Your task to perform on an android device: empty trash in google photos Image 0: 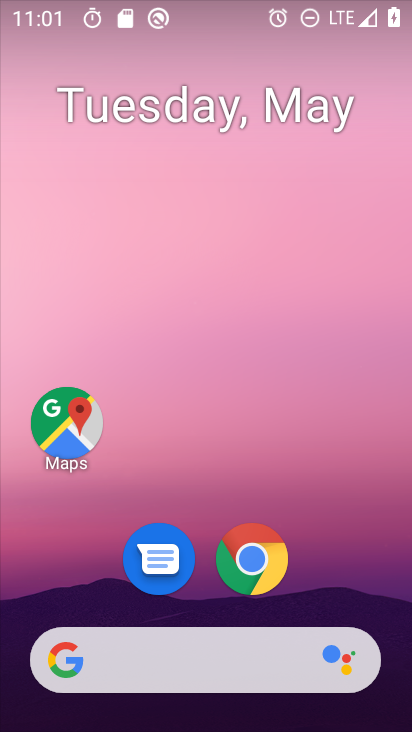
Step 0: drag from (396, 661) to (287, 141)
Your task to perform on an android device: empty trash in google photos Image 1: 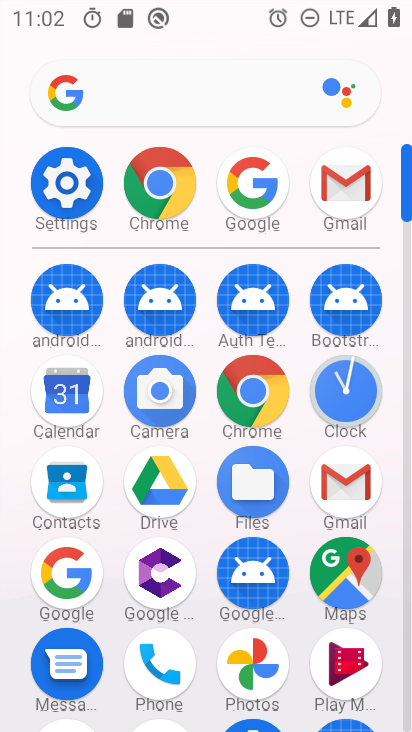
Step 1: click (261, 651)
Your task to perform on an android device: empty trash in google photos Image 2: 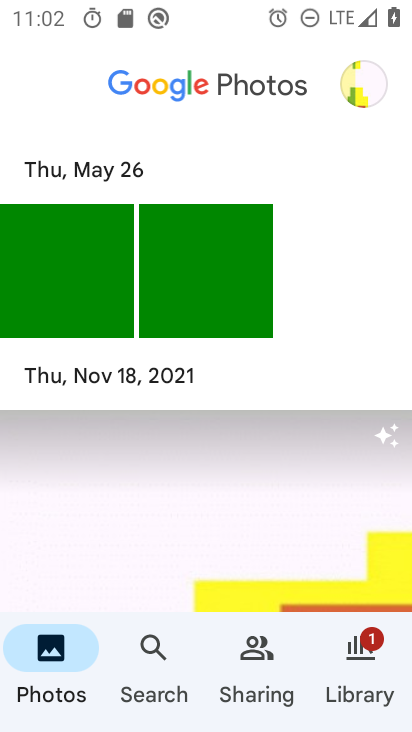
Step 2: click (355, 651)
Your task to perform on an android device: empty trash in google photos Image 3: 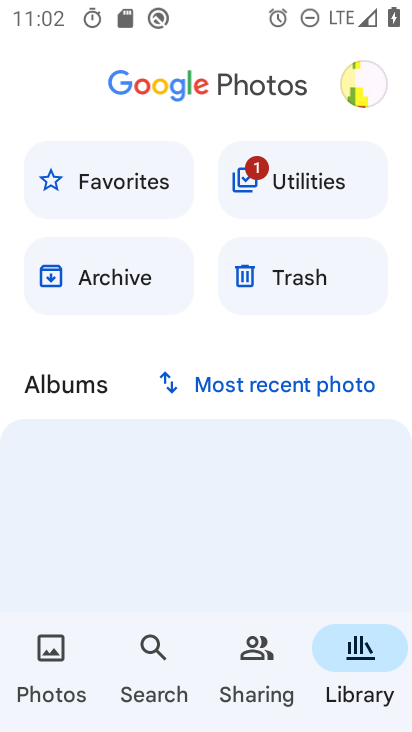
Step 3: click (297, 285)
Your task to perform on an android device: empty trash in google photos Image 4: 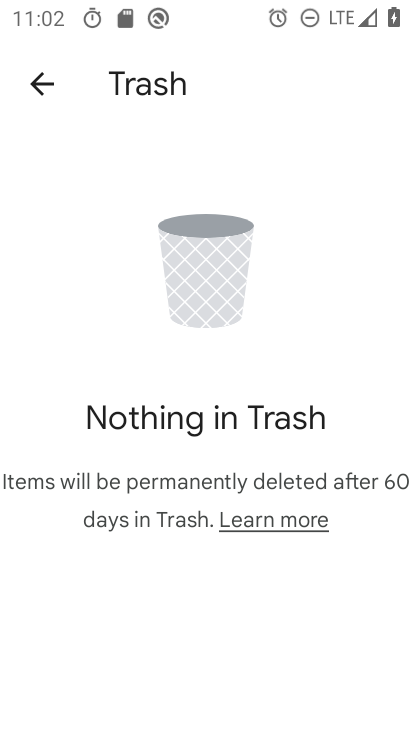
Step 4: task complete